Your task to perform on an android device: Search for pizza restaurants on Maps Image 0: 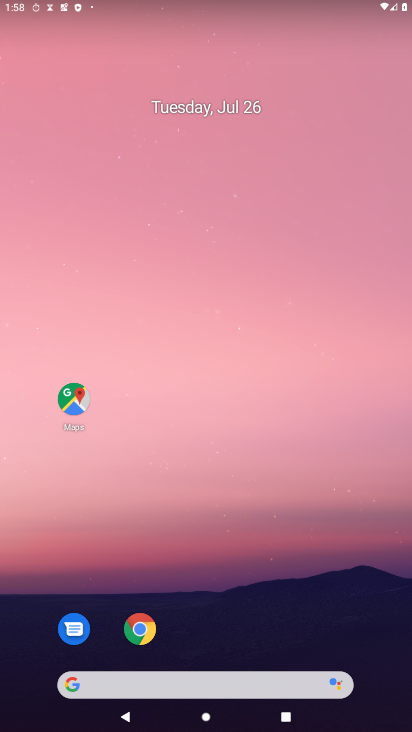
Step 0: drag from (230, 664) to (302, 49)
Your task to perform on an android device: Search for pizza restaurants on Maps Image 1: 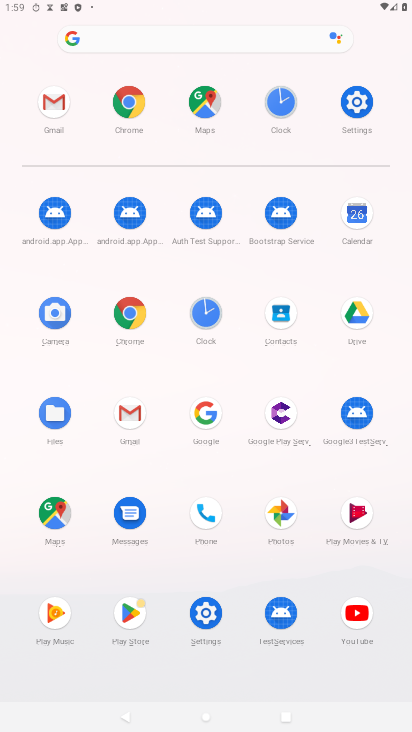
Step 1: click (44, 510)
Your task to perform on an android device: Search for pizza restaurants on Maps Image 2: 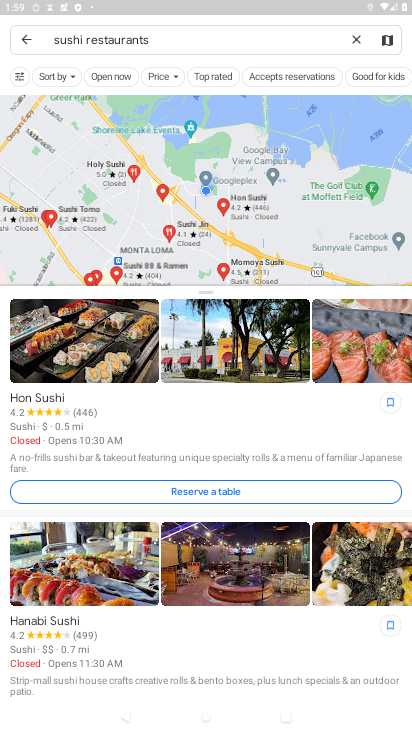
Step 2: click (356, 45)
Your task to perform on an android device: Search for pizza restaurants on Maps Image 3: 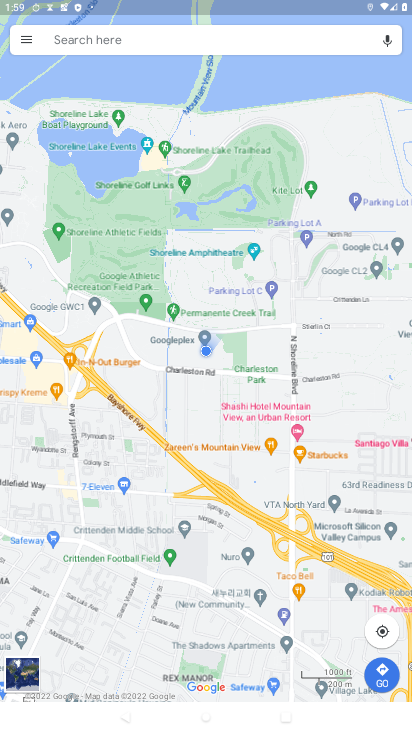
Step 3: click (219, 42)
Your task to perform on an android device: Search for pizza restaurants on Maps Image 4: 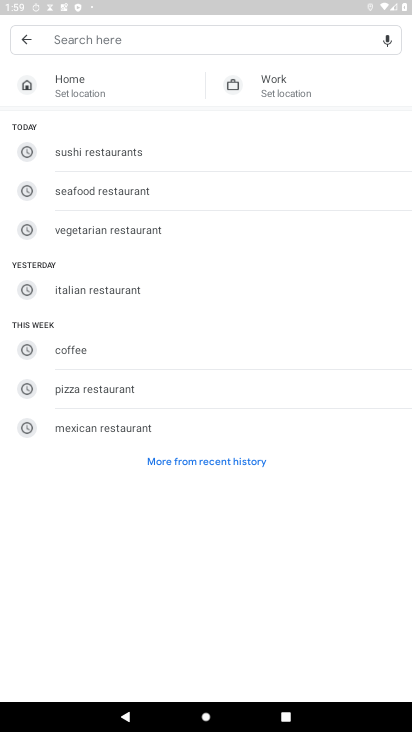
Step 4: type "pizza restaurant"
Your task to perform on an android device: Search for pizza restaurants on Maps Image 5: 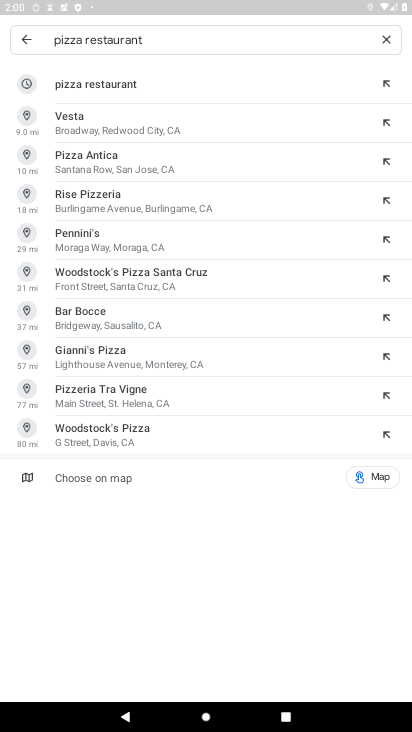
Step 5: click (83, 91)
Your task to perform on an android device: Search for pizza restaurants on Maps Image 6: 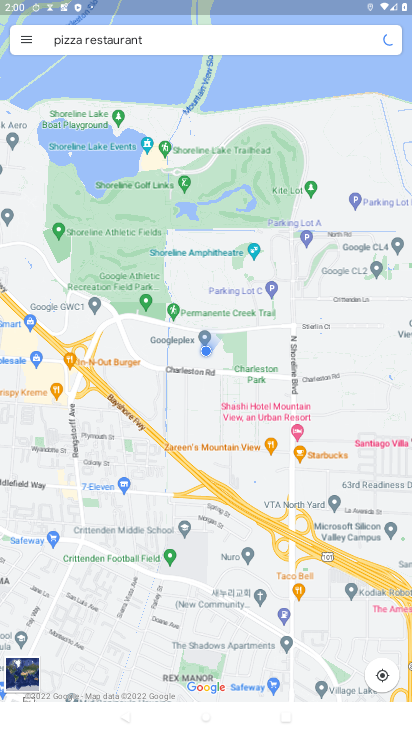
Step 6: task complete